Your task to perform on an android device: toggle location history Image 0: 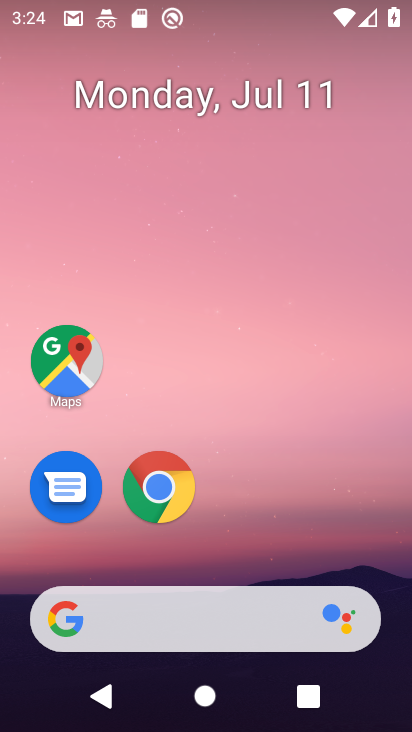
Step 0: drag from (195, 620) to (265, 28)
Your task to perform on an android device: toggle location history Image 1: 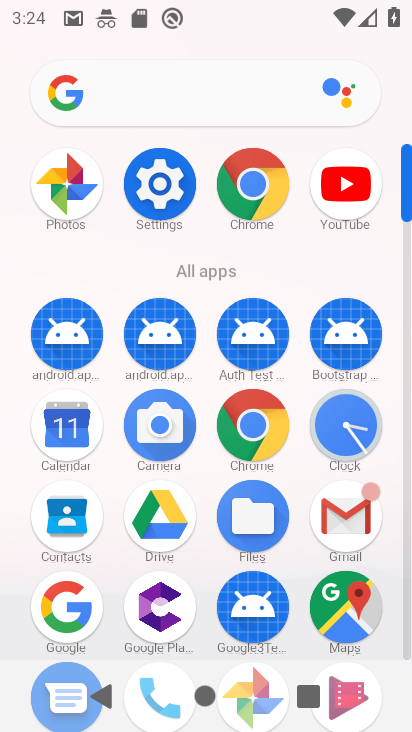
Step 1: click (166, 199)
Your task to perform on an android device: toggle location history Image 2: 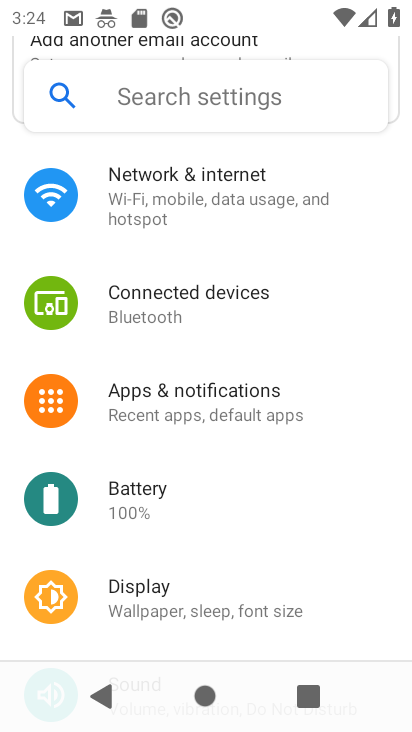
Step 2: drag from (234, 401) to (357, 70)
Your task to perform on an android device: toggle location history Image 3: 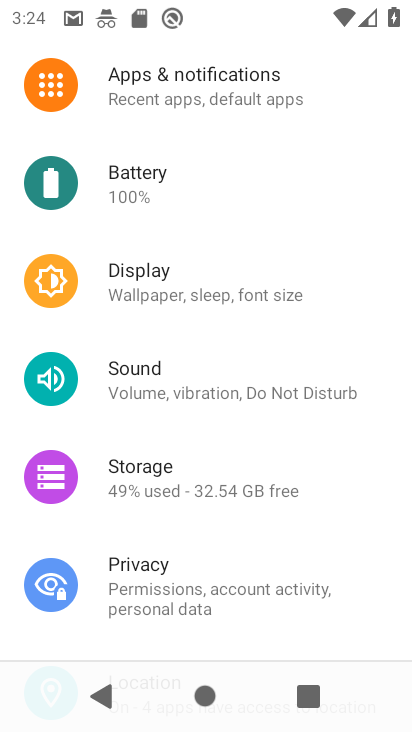
Step 3: drag from (198, 565) to (271, 61)
Your task to perform on an android device: toggle location history Image 4: 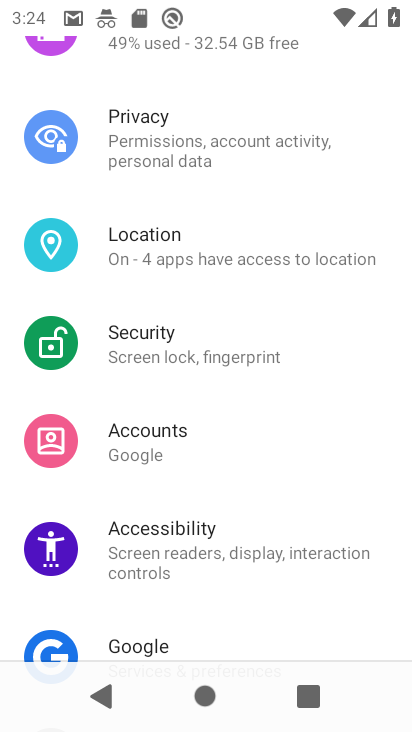
Step 4: click (186, 251)
Your task to perform on an android device: toggle location history Image 5: 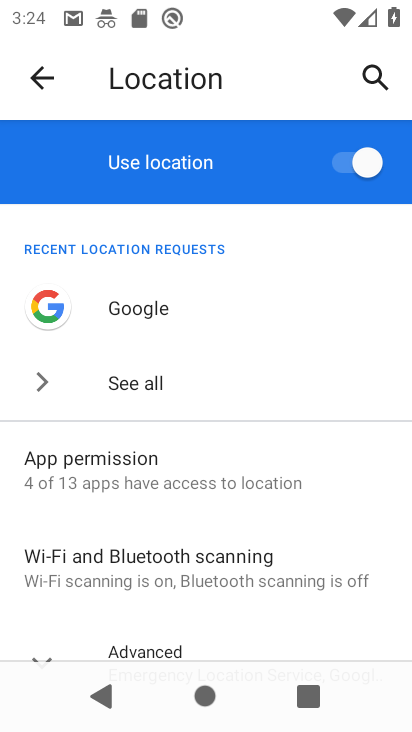
Step 5: drag from (184, 549) to (357, 86)
Your task to perform on an android device: toggle location history Image 6: 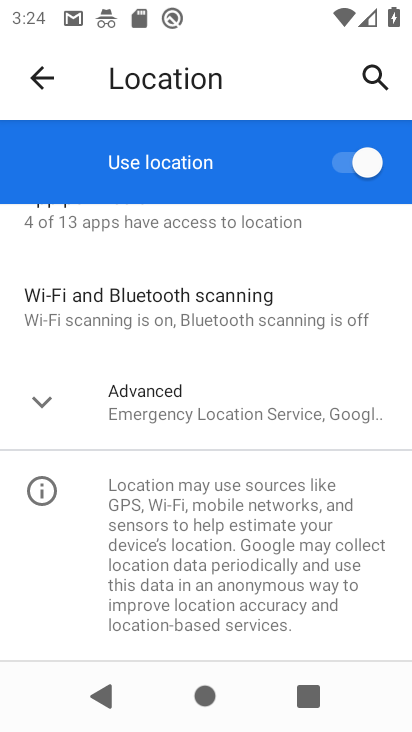
Step 6: click (149, 385)
Your task to perform on an android device: toggle location history Image 7: 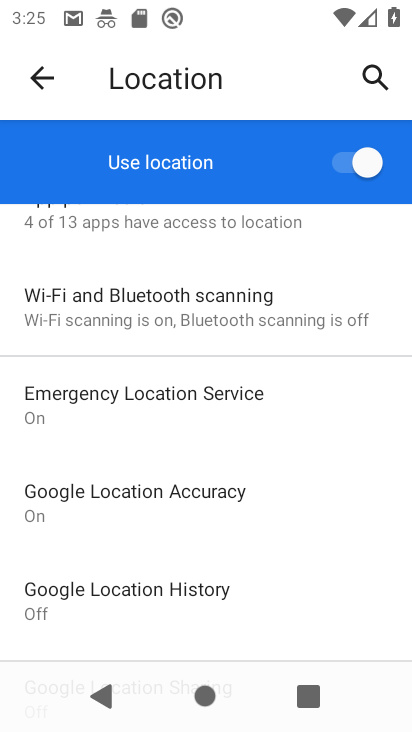
Step 7: click (161, 593)
Your task to perform on an android device: toggle location history Image 8: 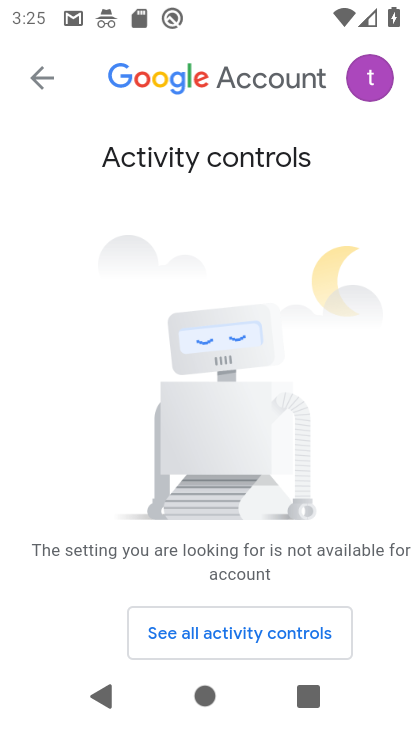
Step 8: drag from (184, 581) to (225, 27)
Your task to perform on an android device: toggle location history Image 9: 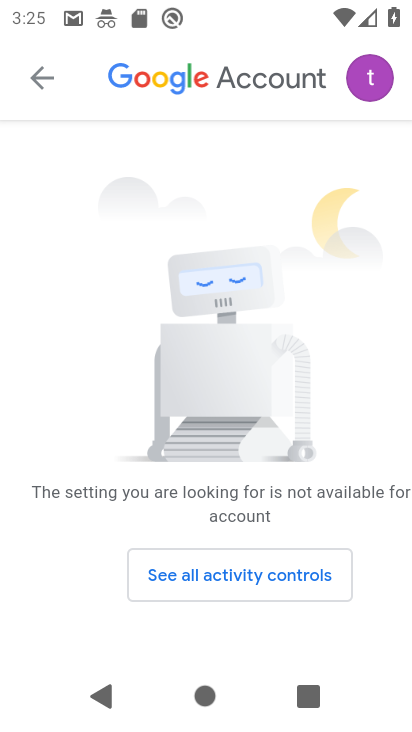
Step 9: drag from (150, 686) to (96, 141)
Your task to perform on an android device: toggle location history Image 10: 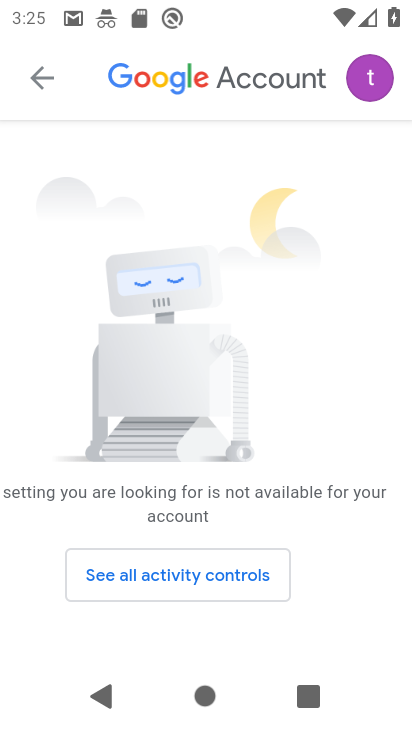
Step 10: click (36, 76)
Your task to perform on an android device: toggle location history Image 11: 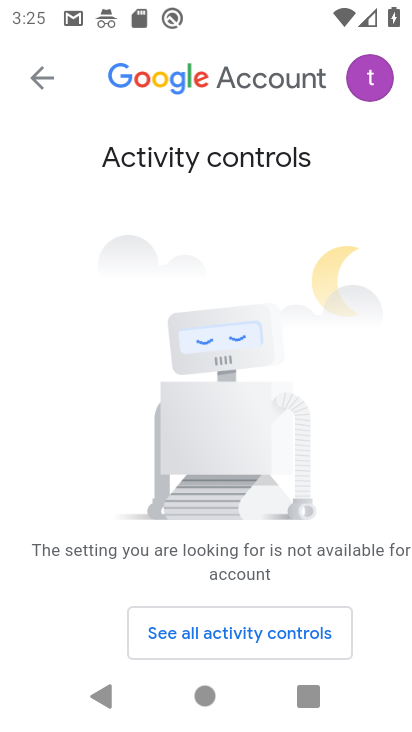
Step 11: click (51, 72)
Your task to perform on an android device: toggle location history Image 12: 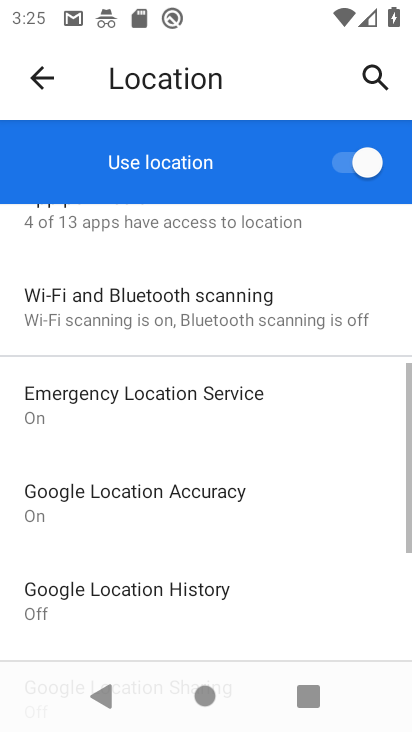
Step 12: click (152, 586)
Your task to perform on an android device: toggle location history Image 13: 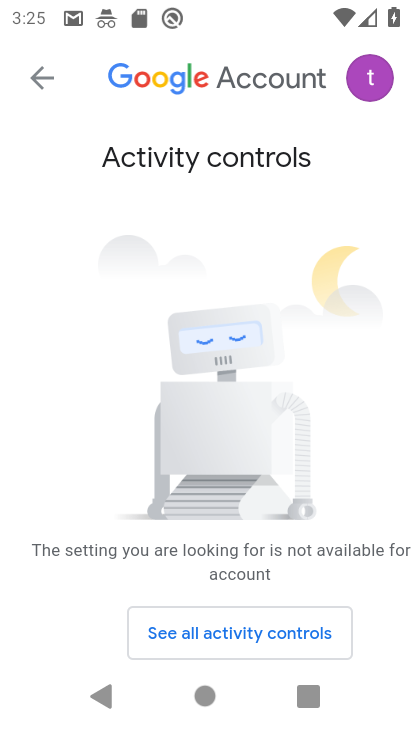
Step 13: task complete